Your task to perform on an android device: choose inbox layout in the gmail app Image 0: 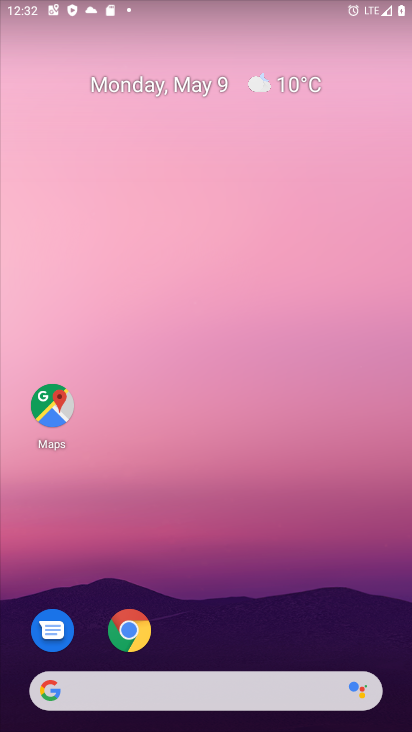
Step 0: drag from (309, 644) to (288, 56)
Your task to perform on an android device: choose inbox layout in the gmail app Image 1: 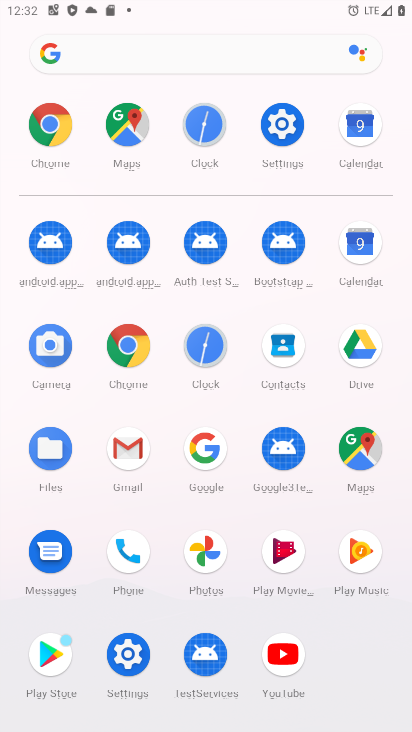
Step 1: click (134, 440)
Your task to perform on an android device: choose inbox layout in the gmail app Image 2: 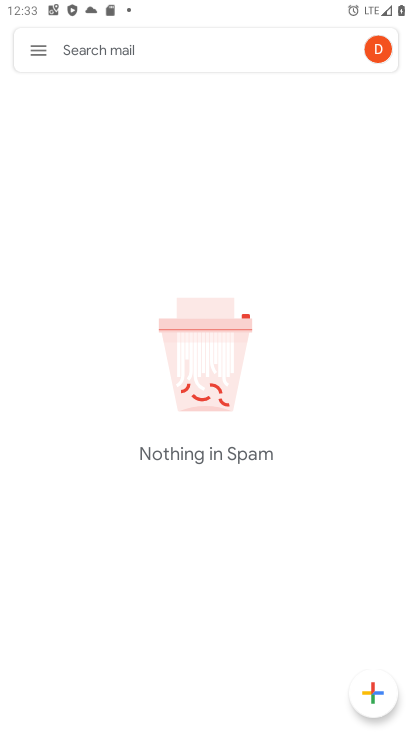
Step 2: task complete